Your task to perform on an android device: Go to internet settings Image 0: 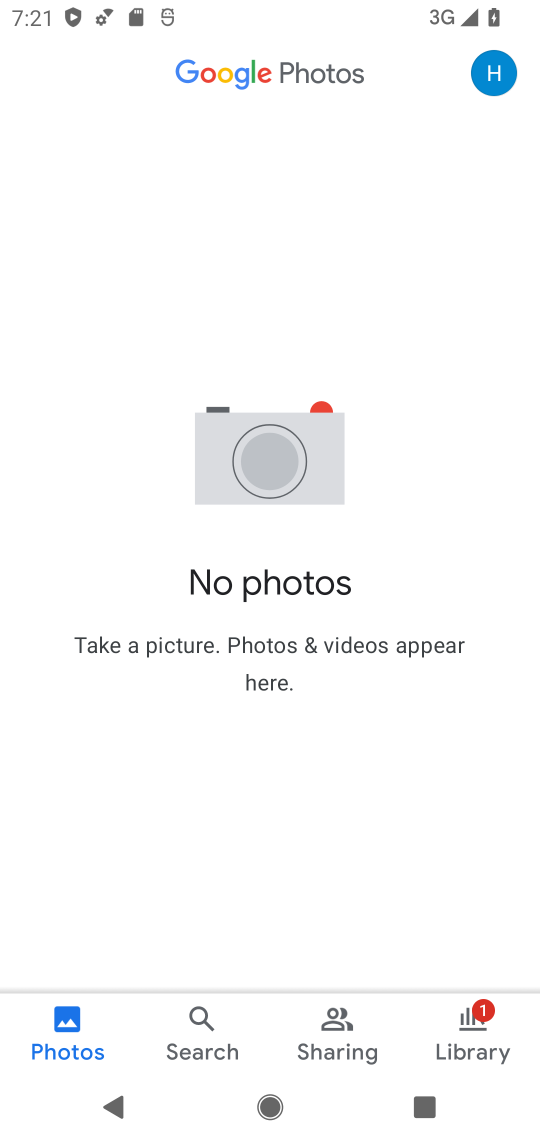
Step 0: press home button
Your task to perform on an android device: Go to internet settings Image 1: 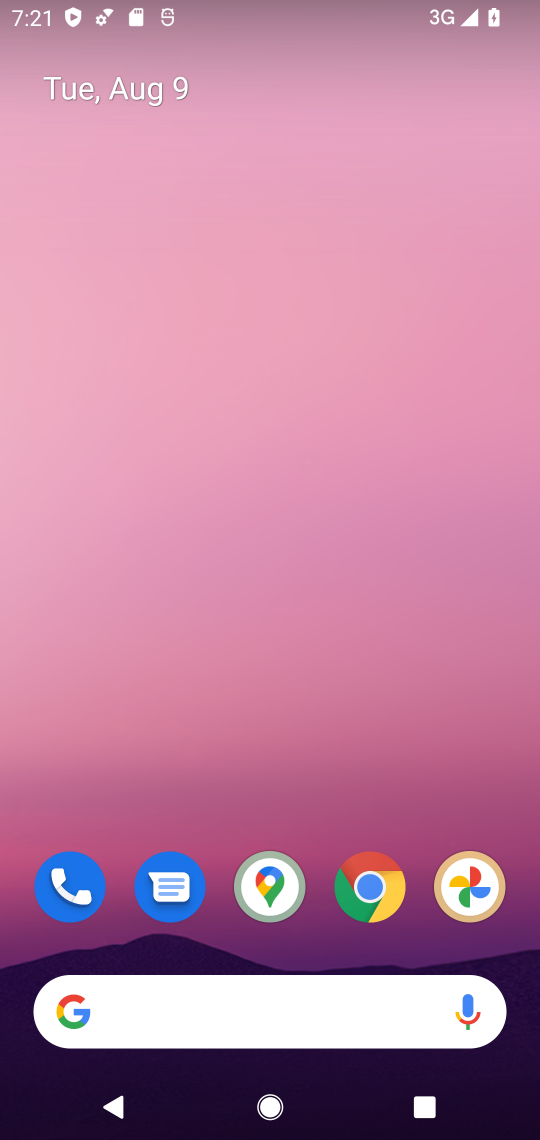
Step 1: drag from (334, 798) to (401, 0)
Your task to perform on an android device: Go to internet settings Image 2: 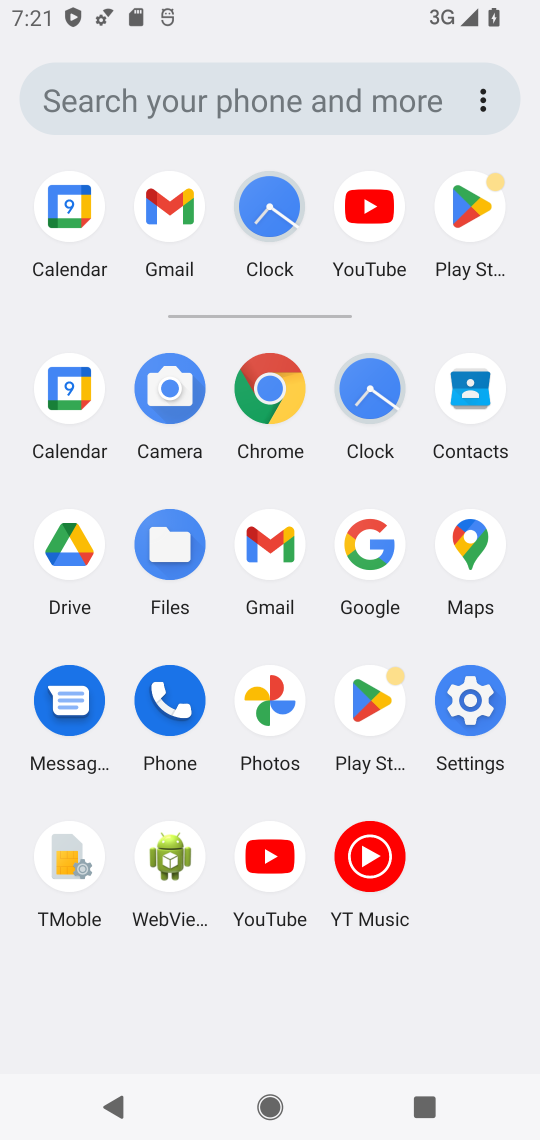
Step 2: click (464, 689)
Your task to perform on an android device: Go to internet settings Image 3: 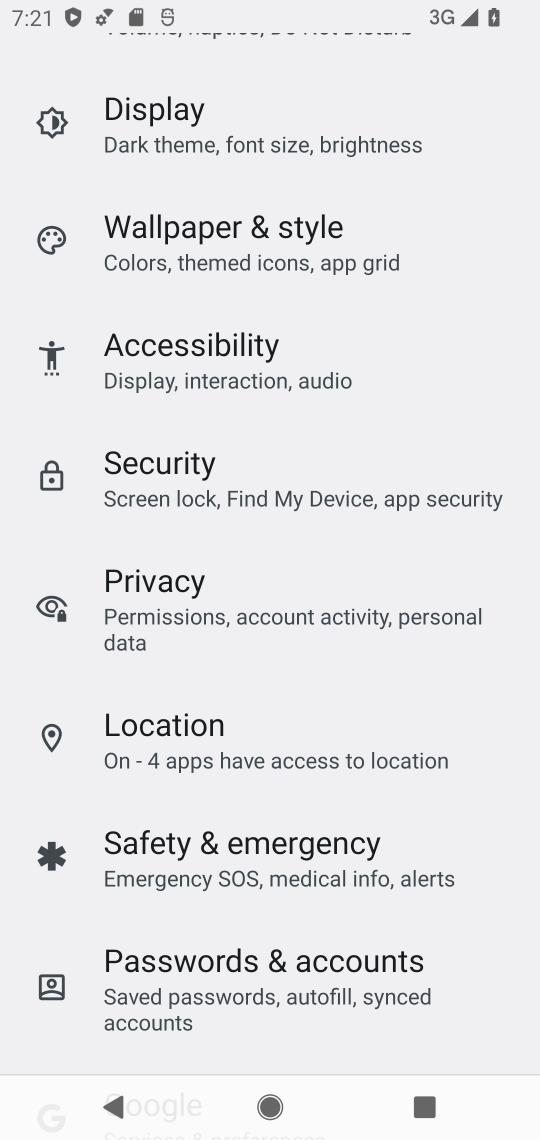
Step 3: drag from (286, 184) to (294, 922)
Your task to perform on an android device: Go to internet settings Image 4: 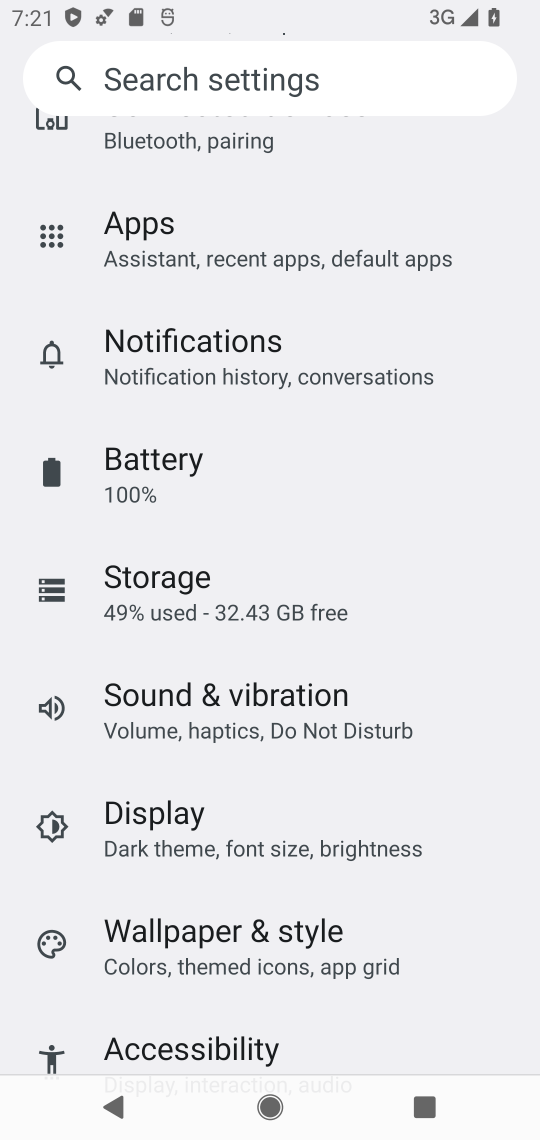
Step 4: drag from (323, 264) to (285, 841)
Your task to perform on an android device: Go to internet settings Image 5: 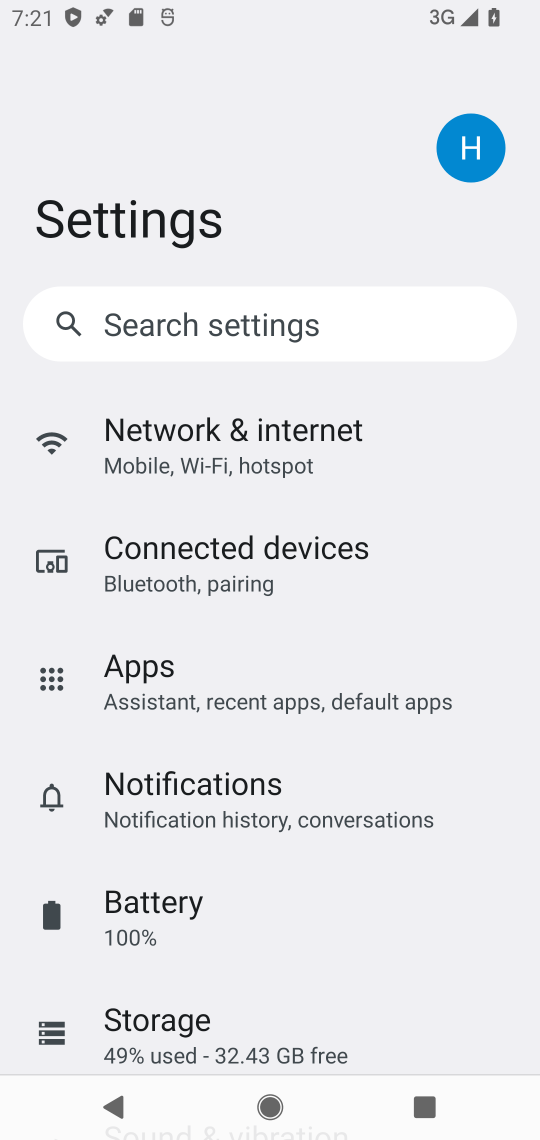
Step 5: click (281, 451)
Your task to perform on an android device: Go to internet settings Image 6: 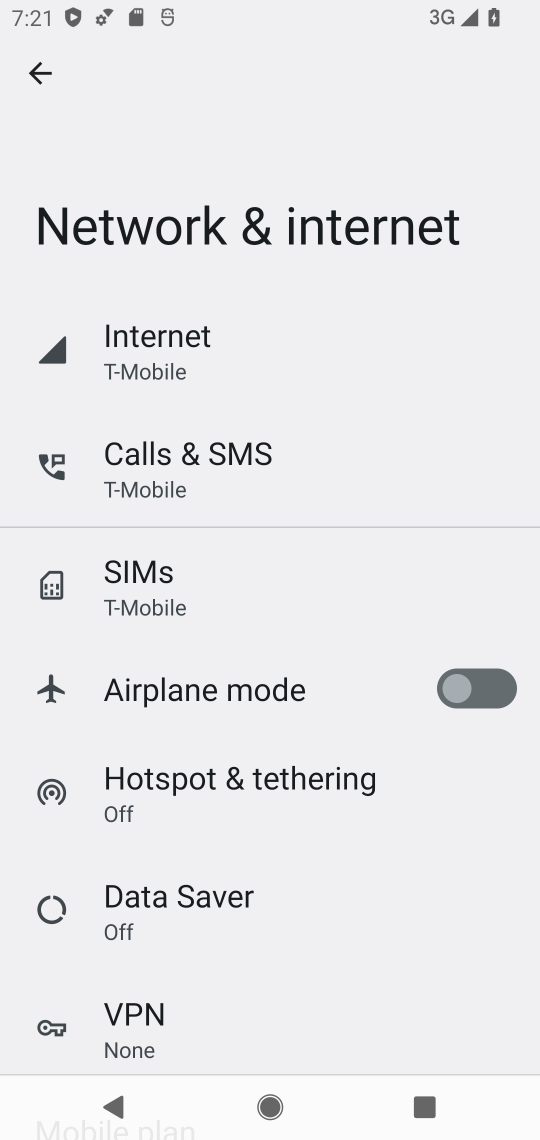
Step 6: click (206, 351)
Your task to perform on an android device: Go to internet settings Image 7: 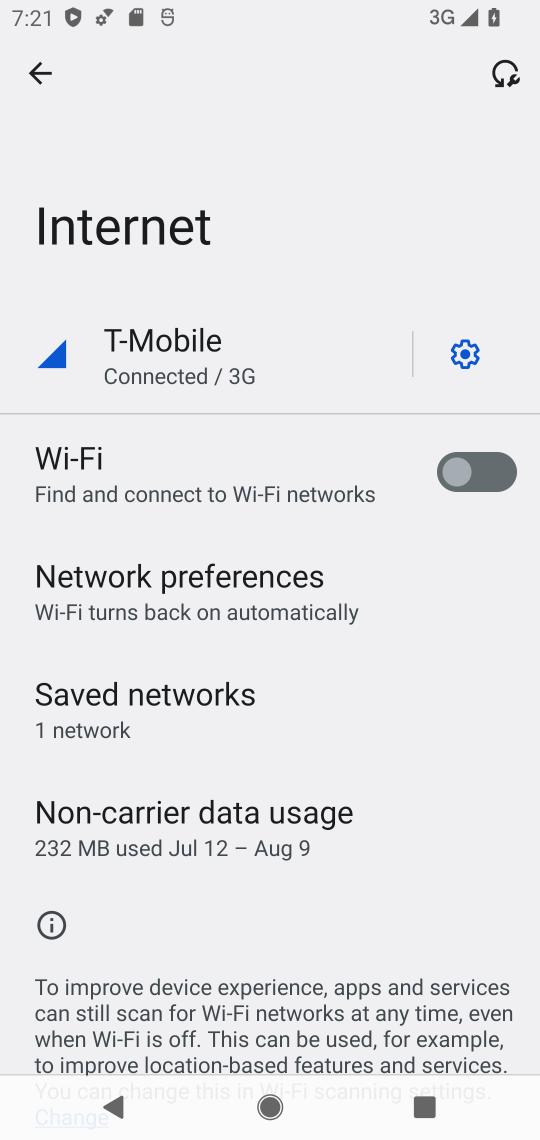
Step 7: task complete